Your task to perform on an android device: Set the phone to "Do not disturb". Image 0: 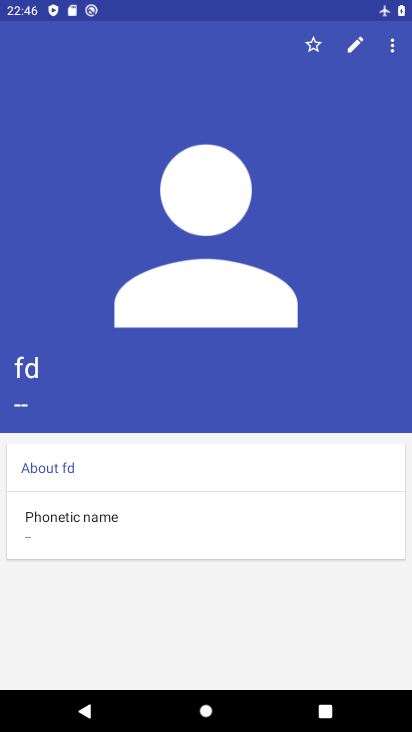
Step 0: press home button
Your task to perform on an android device: Set the phone to "Do not disturb". Image 1: 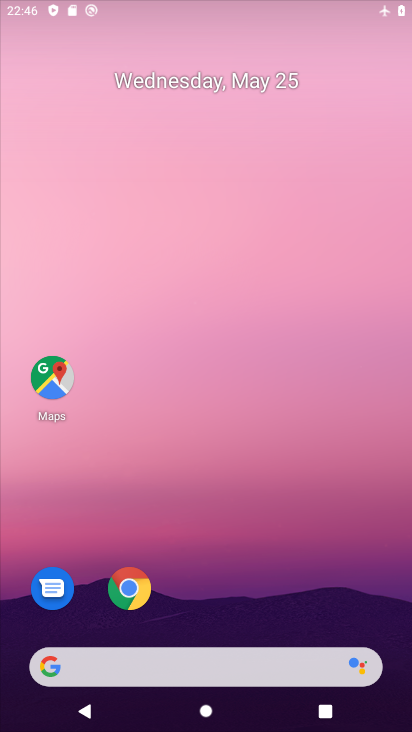
Step 1: drag from (142, 6) to (234, 534)
Your task to perform on an android device: Set the phone to "Do not disturb". Image 2: 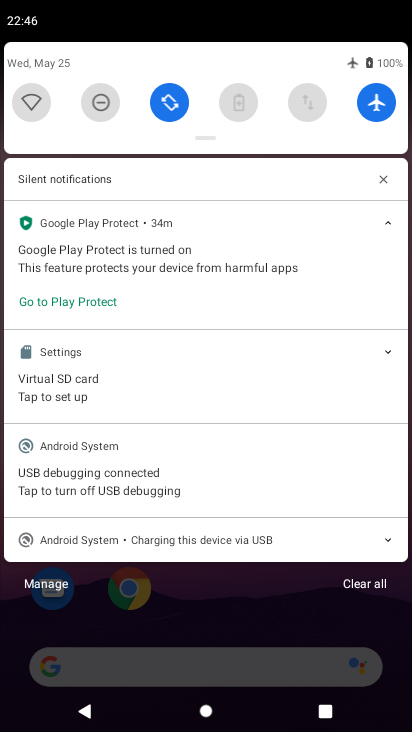
Step 2: click (105, 102)
Your task to perform on an android device: Set the phone to "Do not disturb". Image 3: 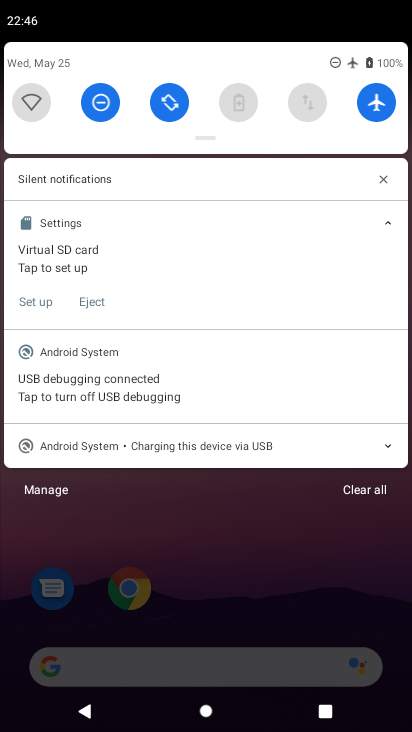
Step 3: task complete